Your task to perform on an android device: Do I have any events tomorrow? Image 0: 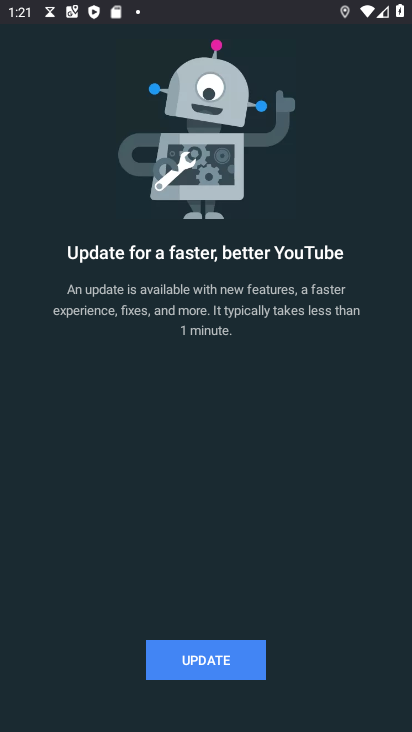
Step 0: press home button
Your task to perform on an android device: Do I have any events tomorrow? Image 1: 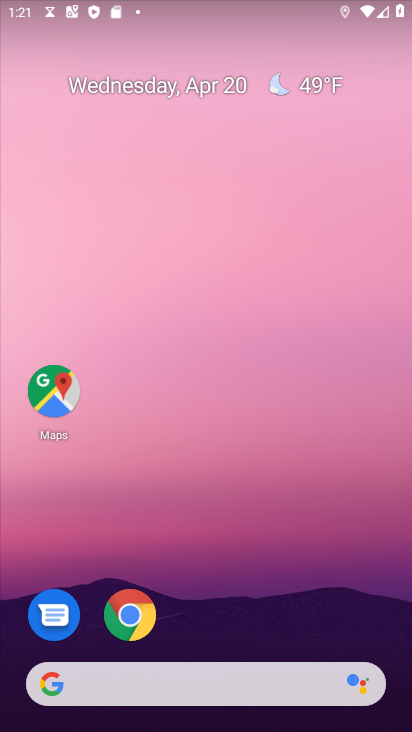
Step 1: drag from (7, 613) to (178, 284)
Your task to perform on an android device: Do I have any events tomorrow? Image 2: 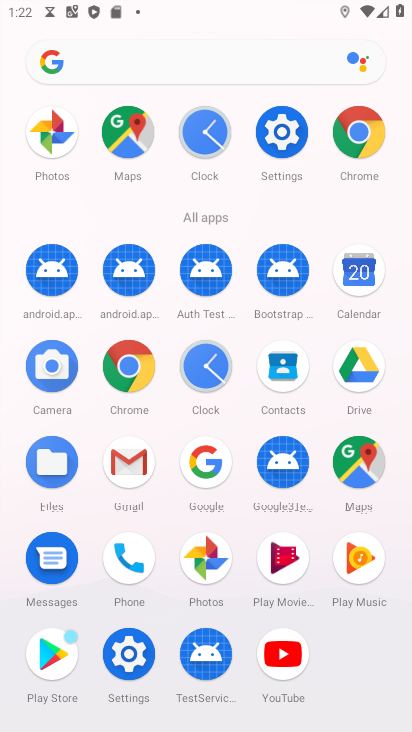
Step 2: click (366, 285)
Your task to perform on an android device: Do I have any events tomorrow? Image 3: 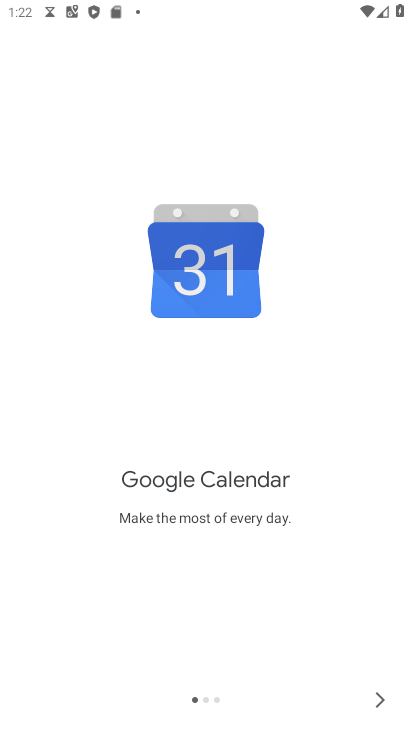
Step 3: click (383, 694)
Your task to perform on an android device: Do I have any events tomorrow? Image 4: 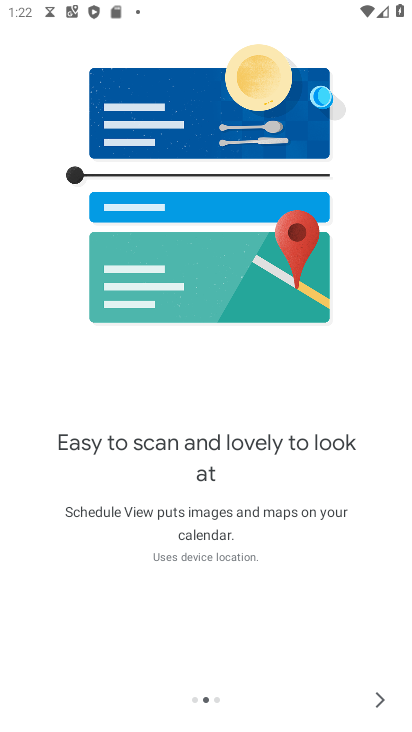
Step 4: click (383, 694)
Your task to perform on an android device: Do I have any events tomorrow? Image 5: 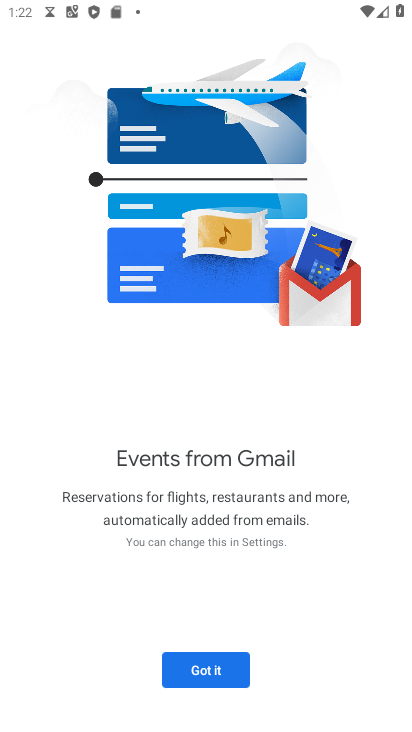
Step 5: click (383, 694)
Your task to perform on an android device: Do I have any events tomorrow? Image 6: 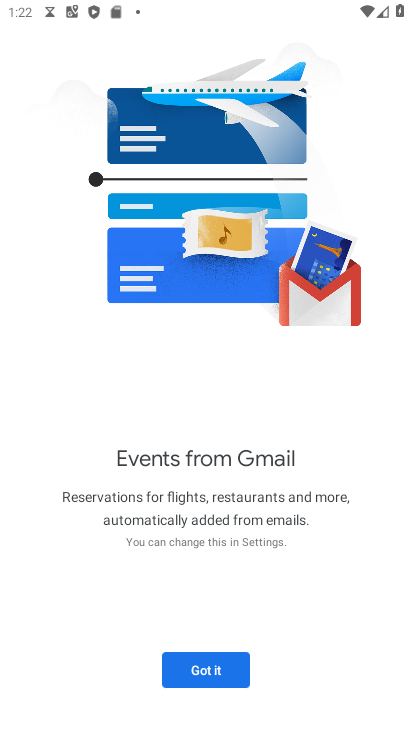
Step 6: click (212, 664)
Your task to perform on an android device: Do I have any events tomorrow? Image 7: 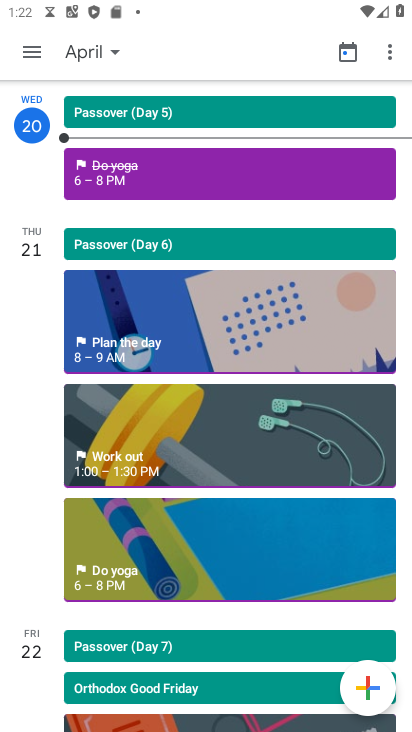
Step 7: click (22, 242)
Your task to perform on an android device: Do I have any events tomorrow? Image 8: 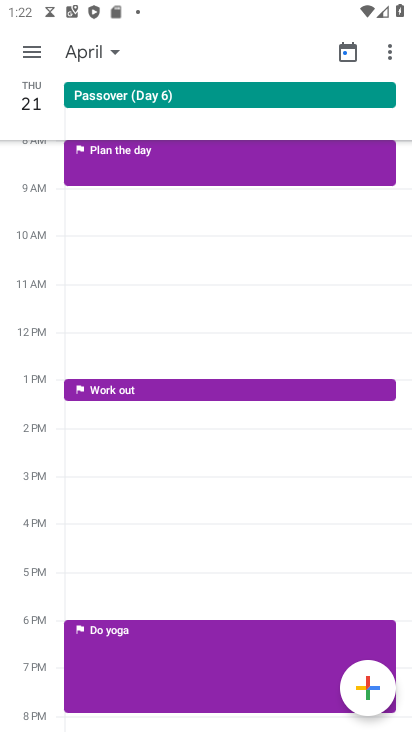
Step 8: task complete